Your task to perform on an android device: Go to Reddit.com Image 0: 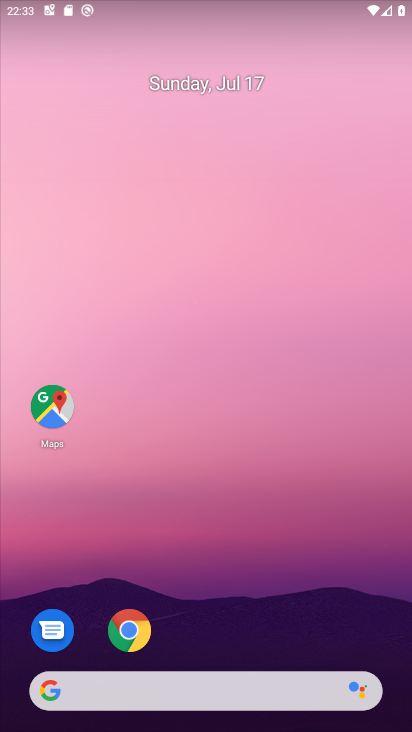
Step 0: click (122, 631)
Your task to perform on an android device: Go to Reddit.com Image 1: 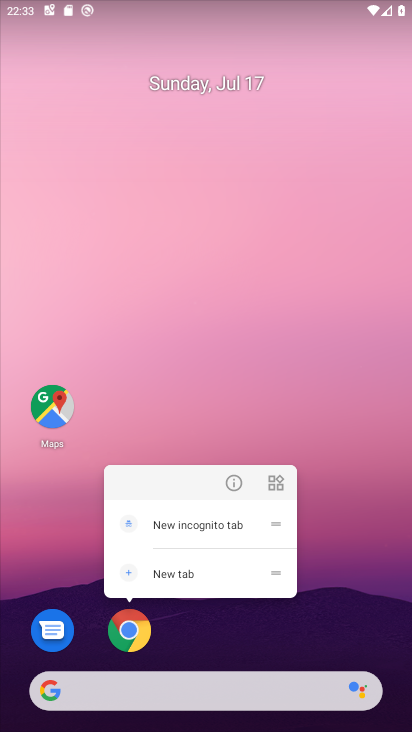
Step 1: click (122, 632)
Your task to perform on an android device: Go to Reddit.com Image 2: 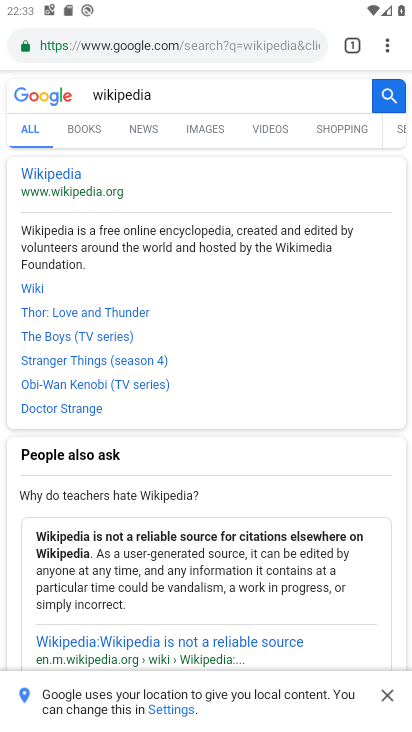
Step 2: click (225, 48)
Your task to perform on an android device: Go to Reddit.com Image 3: 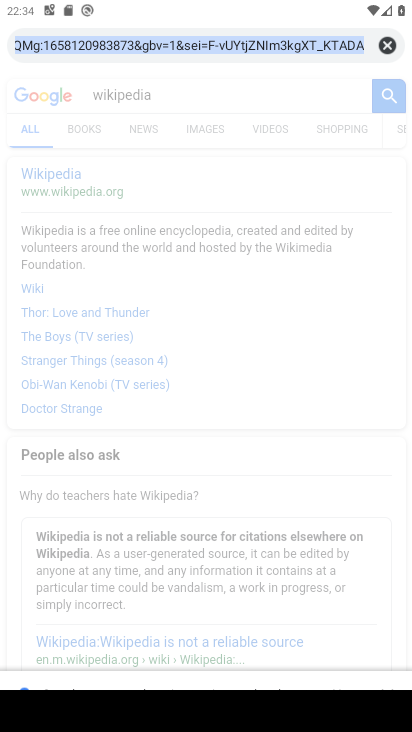
Step 3: type "reddit.com"
Your task to perform on an android device: Go to Reddit.com Image 4: 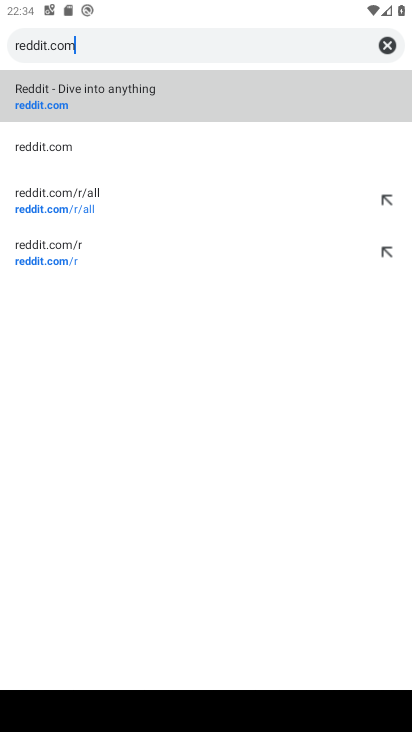
Step 4: click (142, 94)
Your task to perform on an android device: Go to Reddit.com Image 5: 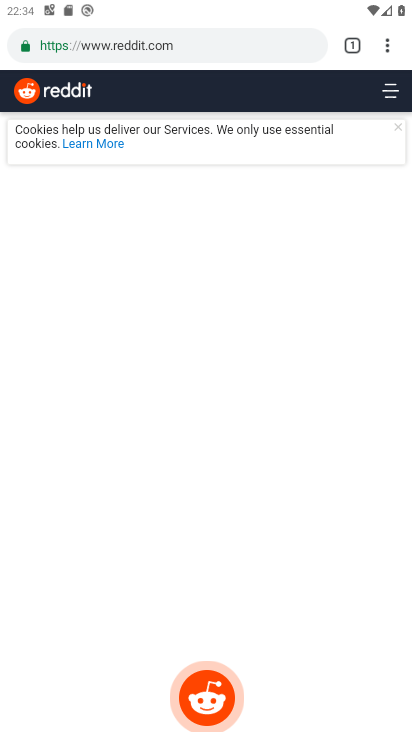
Step 5: task complete